Your task to perform on an android device: toggle location history Image 0: 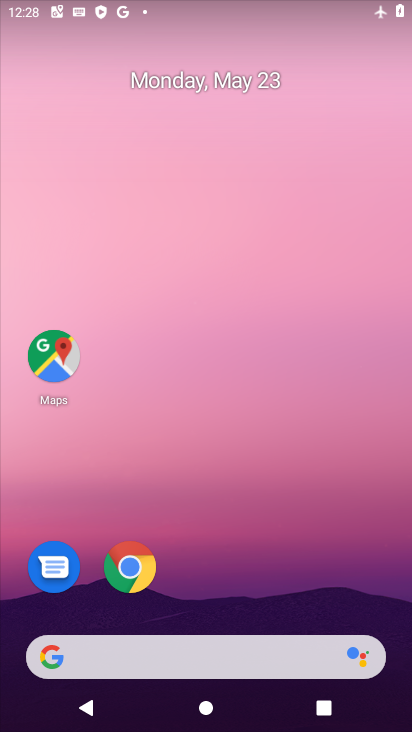
Step 0: drag from (296, 574) to (274, 149)
Your task to perform on an android device: toggle location history Image 1: 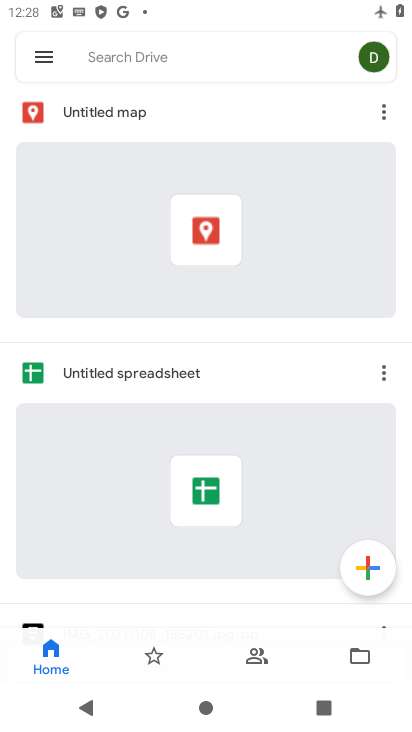
Step 1: press home button
Your task to perform on an android device: toggle location history Image 2: 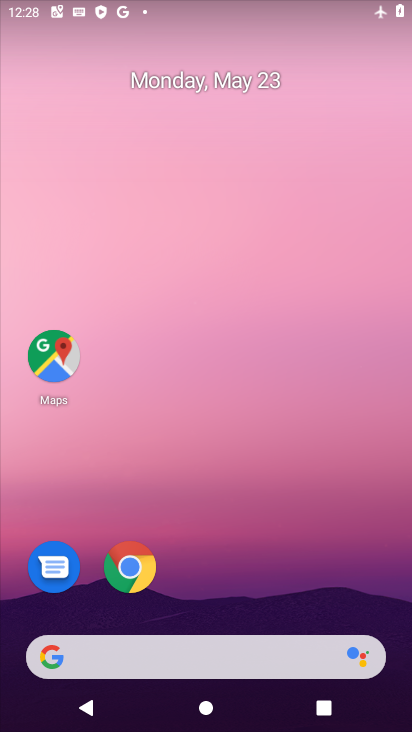
Step 2: drag from (249, 612) to (197, 290)
Your task to perform on an android device: toggle location history Image 3: 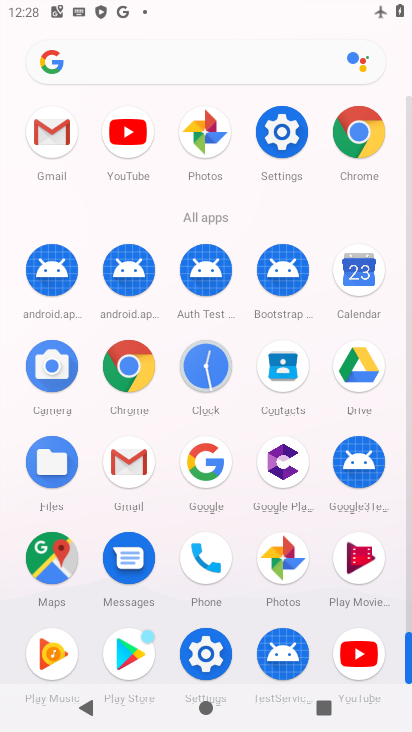
Step 3: click (51, 560)
Your task to perform on an android device: toggle location history Image 4: 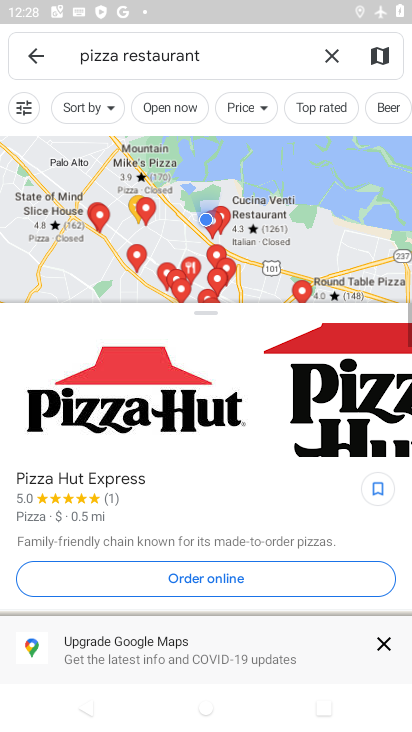
Step 4: click (32, 63)
Your task to perform on an android device: toggle location history Image 5: 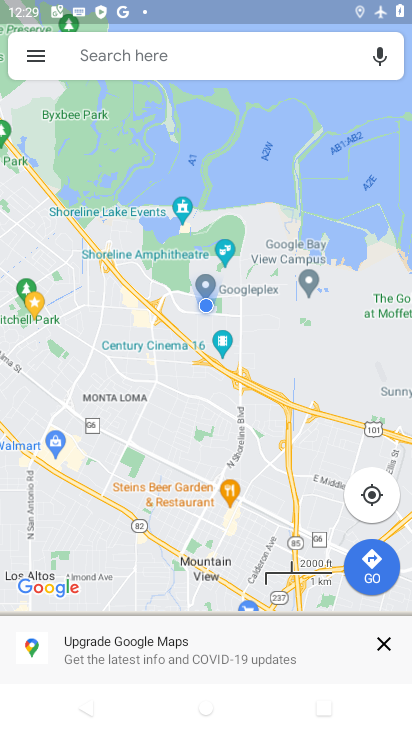
Step 5: click (32, 63)
Your task to perform on an android device: toggle location history Image 6: 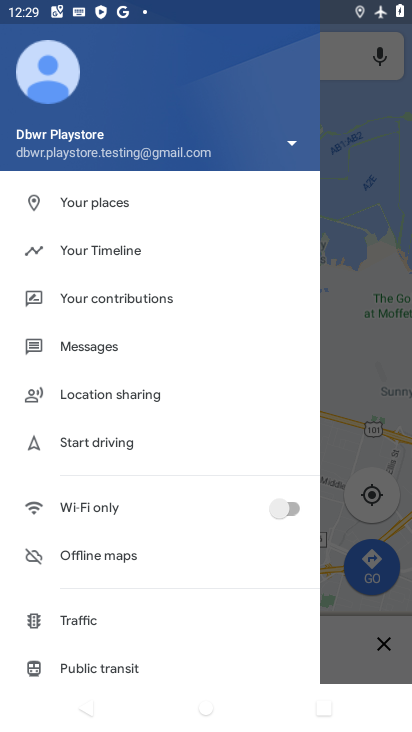
Step 6: click (154, 253)
Your task to perform on an android device: toggle location history Image 7: 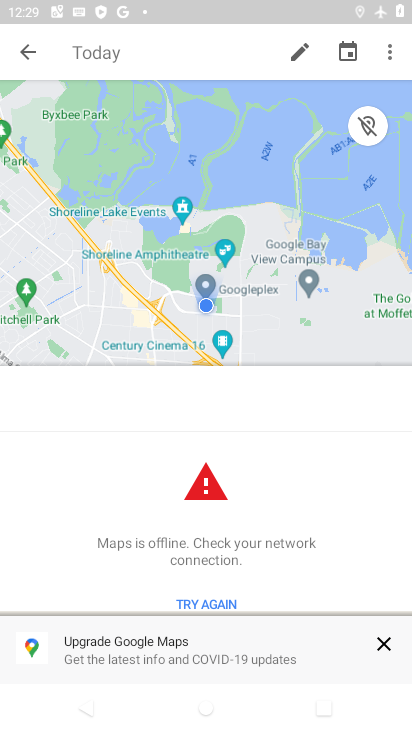
Step 7: click (388, 51)
Your task to perform on an android device: toggle location history Image 8: 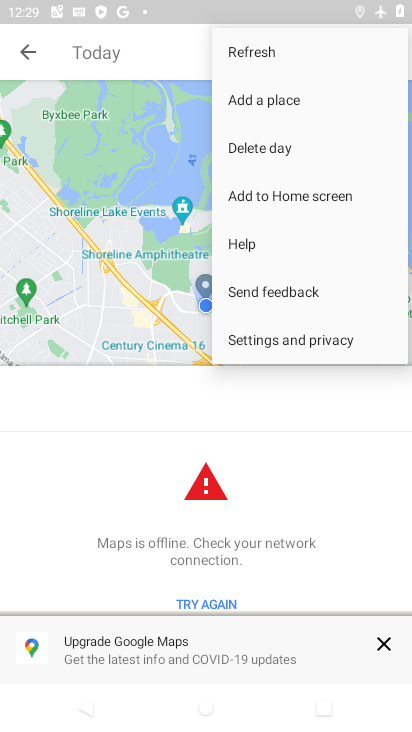
Step 8: click (299, 333)
Your task to perform on an android device: toggle location history Image 9: 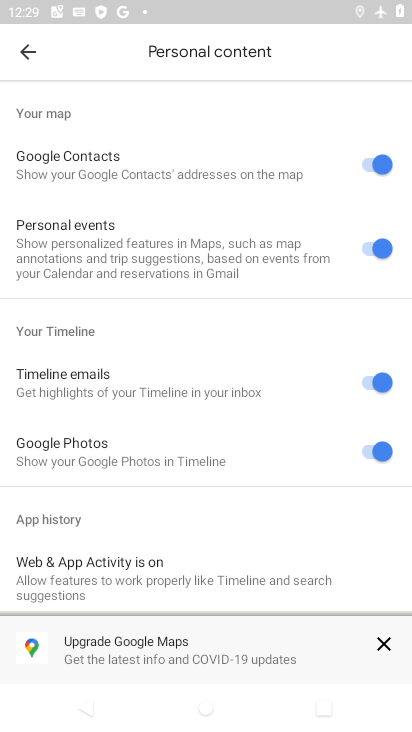
Step 9: drag from (276, 569) to (202, 84)
Your task to perform on an android device: toggle location history Image 10: 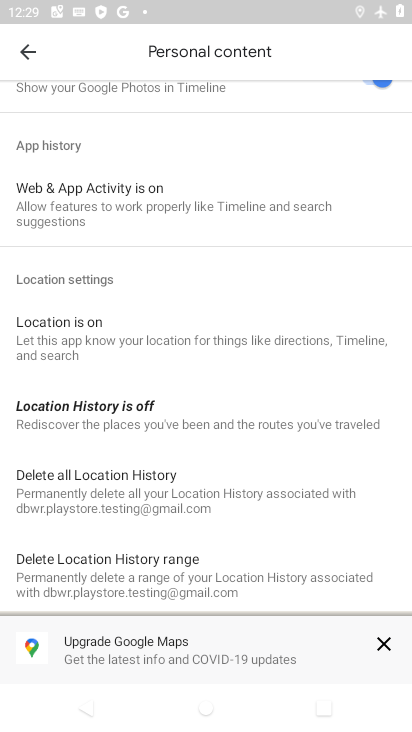
Step 10: click (240, 424)
Your task to perform on an android device: toggle location history Image 11: 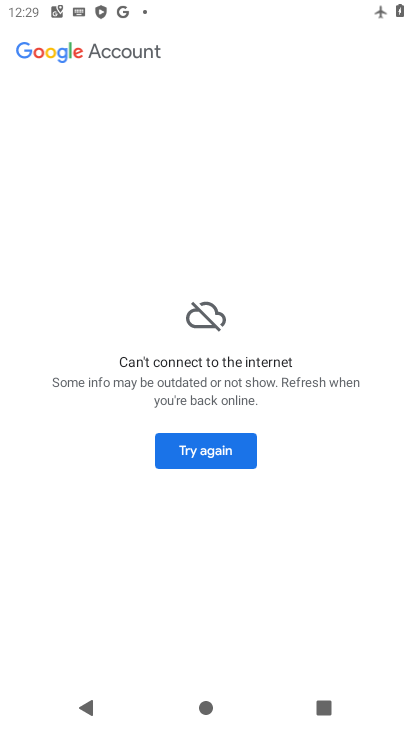
Step 11: task complete